Your task to perform on an android device: What is the recent news? Image 0: 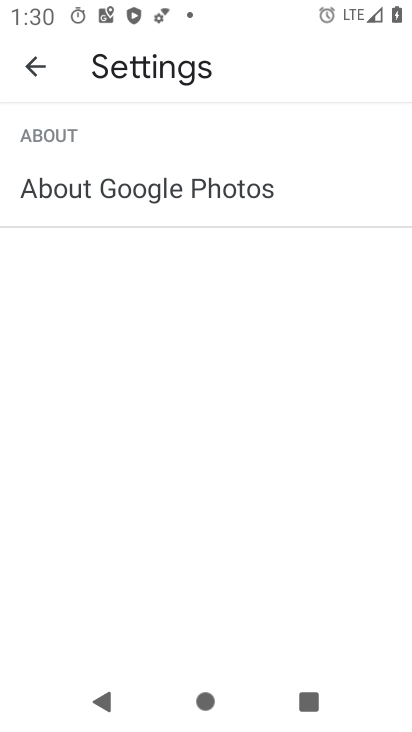
Step 0: press home button
Your task to perform on an android device: What is the recent news? Image 1: 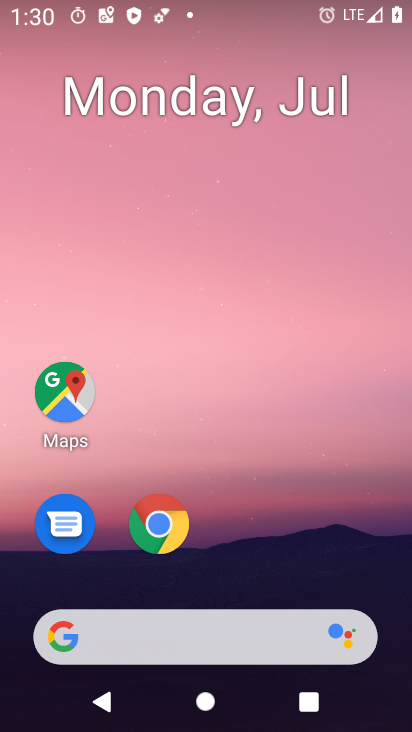
Step 1: click (66, 634)
Your task to perform on an android device: What is the recent news? Image 2: 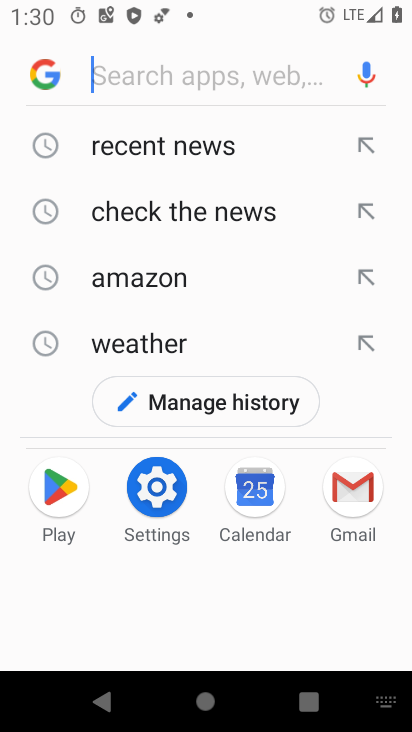
Step 2: click (219, 139)
Your task to perform on an android device: What is the recent news? Image 3: 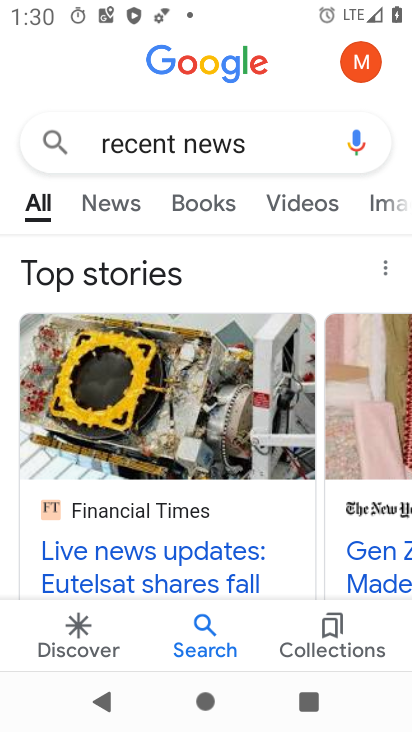
Step 3: task complete